Your task to perform on an android device: What is the news today? Image 0: 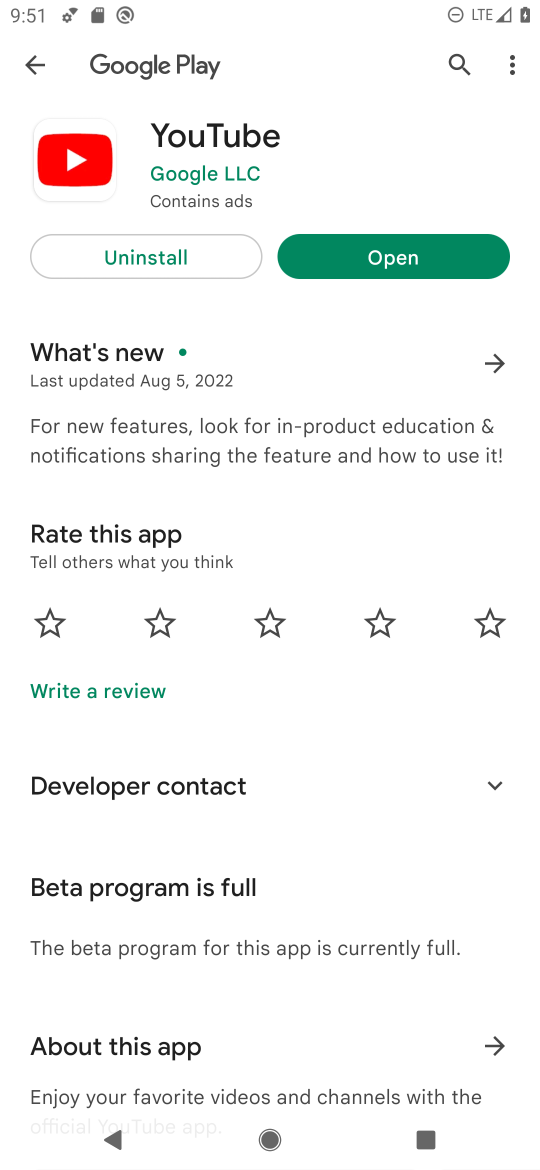
Step 0: press home button
Your task to perform on an android device: What is the news today? Image 1: 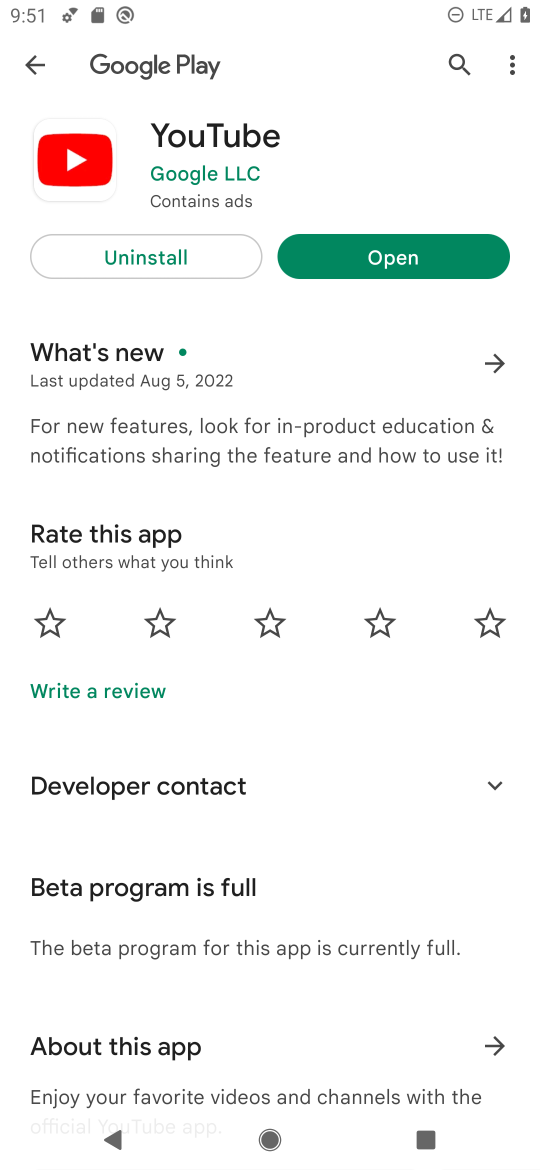
Step 1: press home button
Your task to perform on an android device: What is the news today? Image 2: 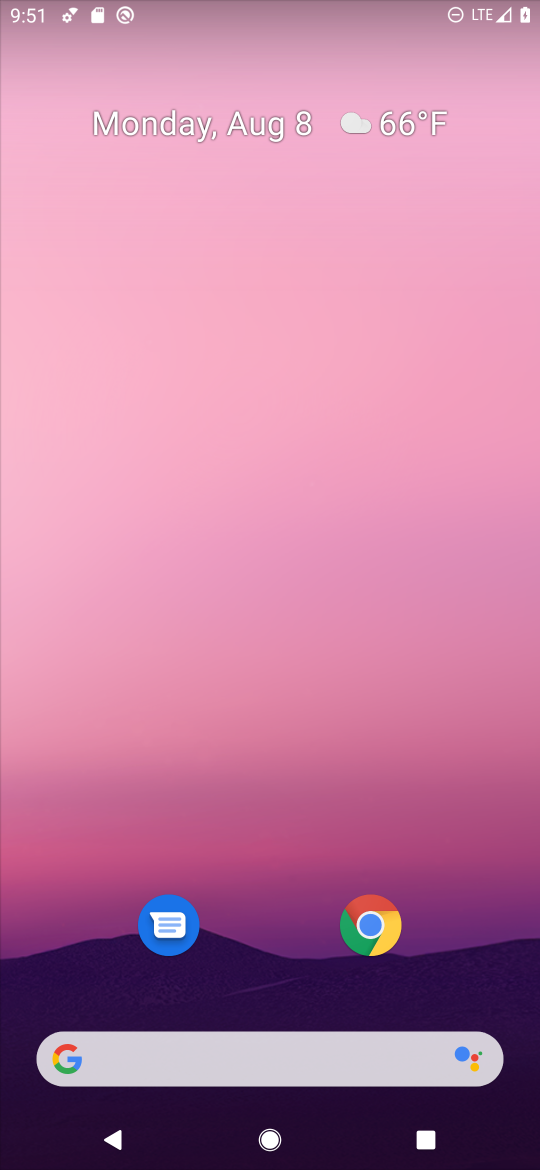
Step 2: drag from (257, 950) to (273, 247)
Your task to perform on an android device: What is the news today? Image 3: 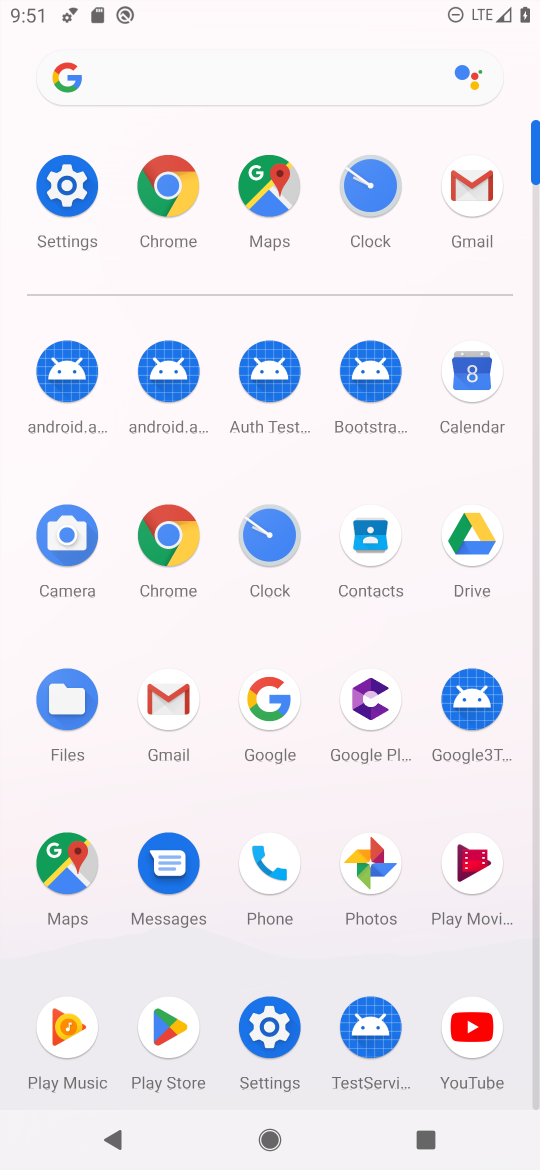
Step 3: click (157, 530)
Your task to perform on an android device: What is the news today? Image 4: 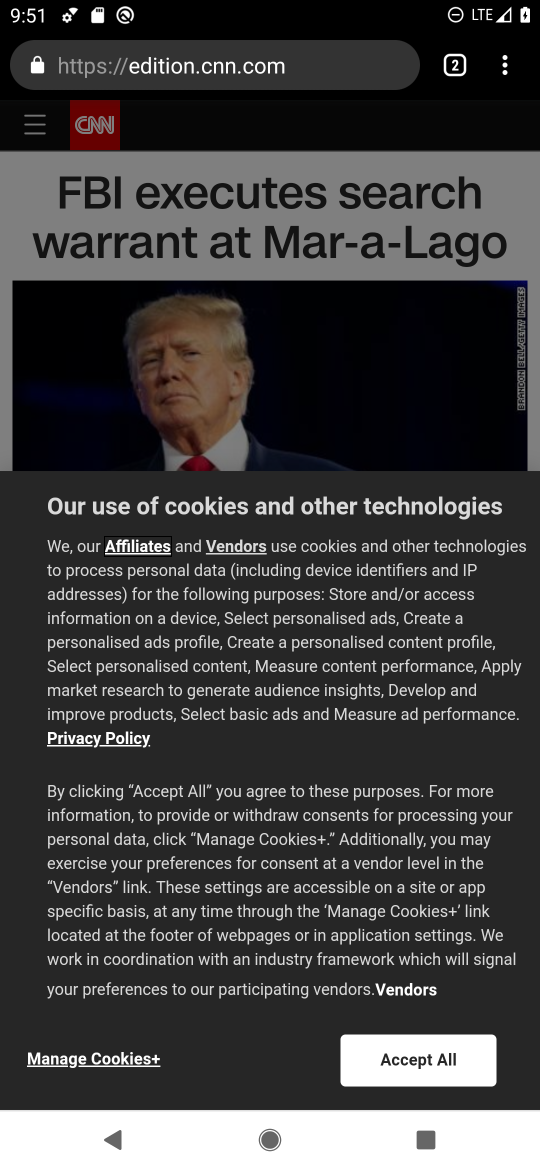
Step 4: click (256, 39)
Your task to perform on an android device: What is the news today? Image 5: 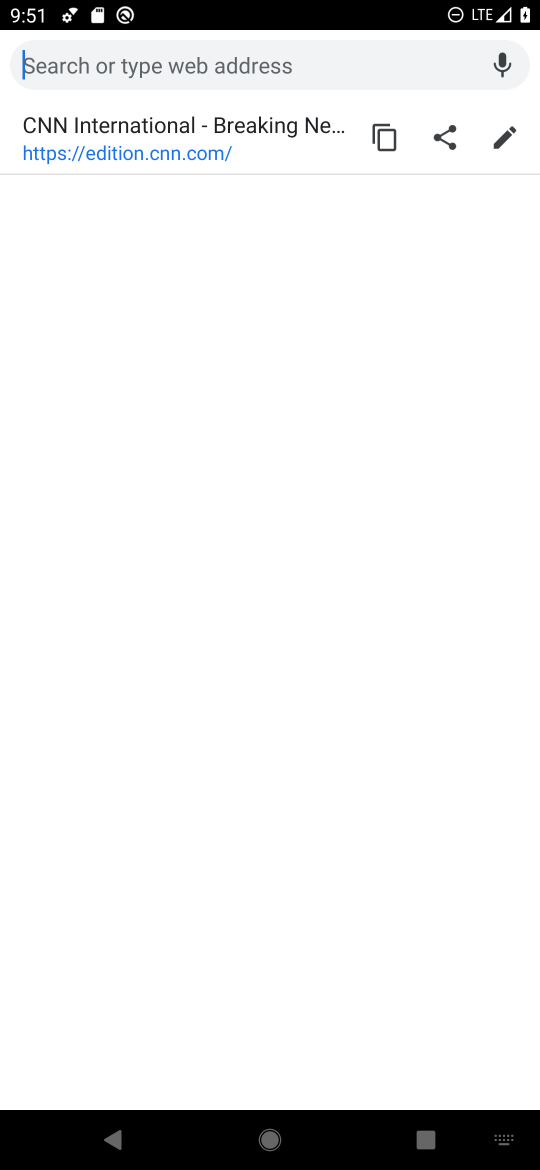
Step 5: type "news"
Your task to perform on an android device: What is the news today? Image 6: 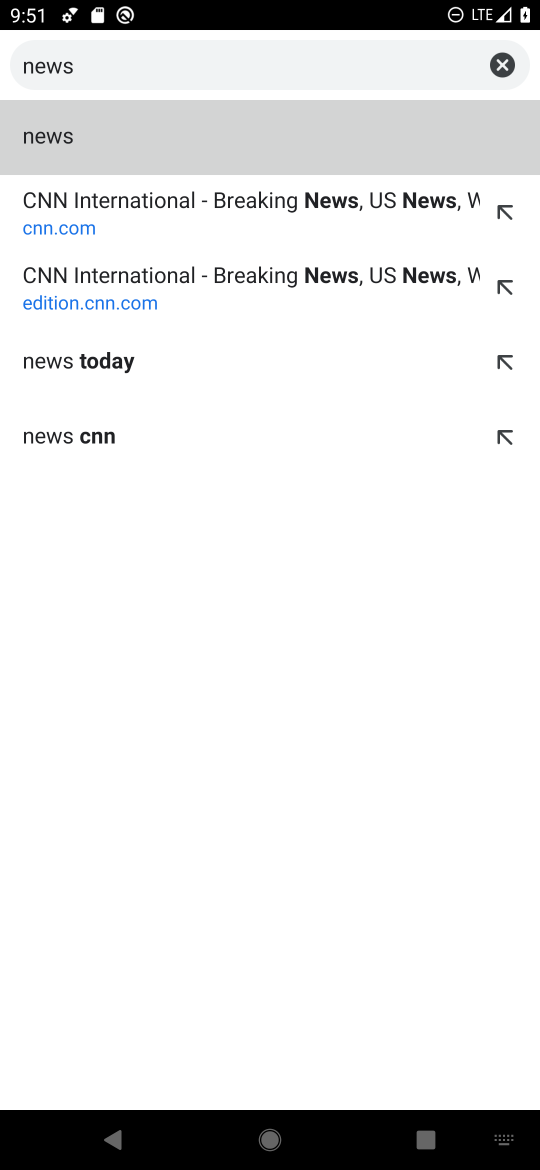
Step 6: click (99, 143)
Your task to perform on an android device: What is the news today? Image 7: 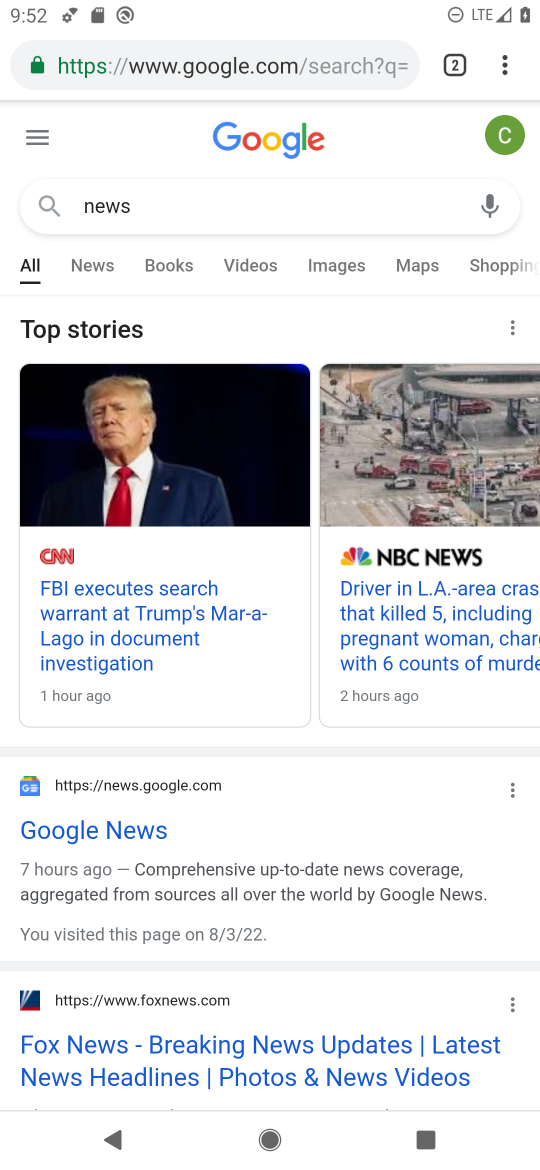
Step 7: click (109, 822)
Your task to perform on an android device: What is the news today? Image 8: 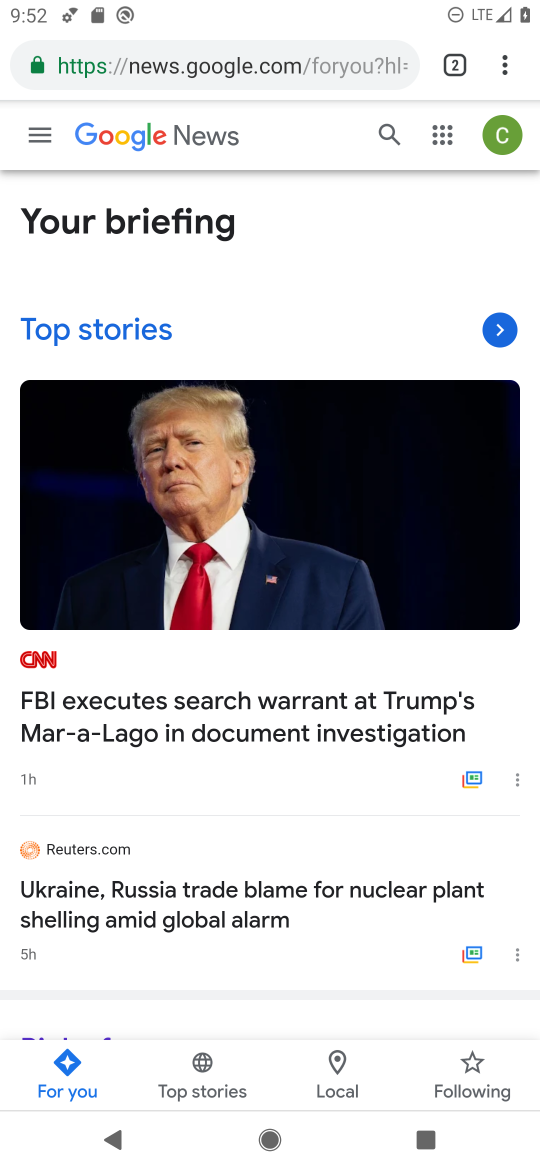
Step 8: task complete